Your task to perform on an android device: Search for Mexican restaurants on Maps Image 0: 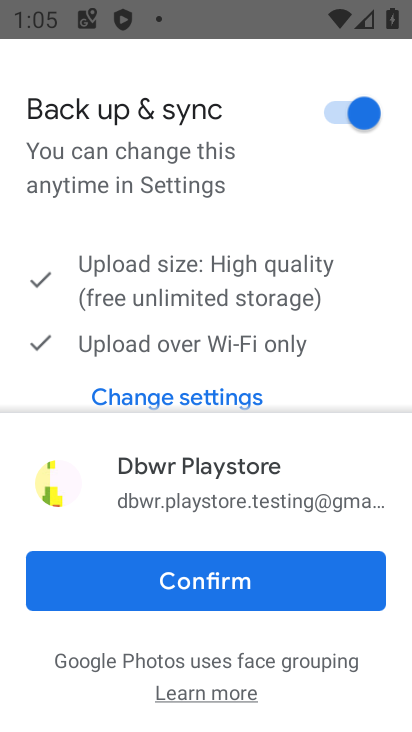
Step 0: press home button
Your task to perform on an android device: Search for Mexican restaurants on Maps Image 1: 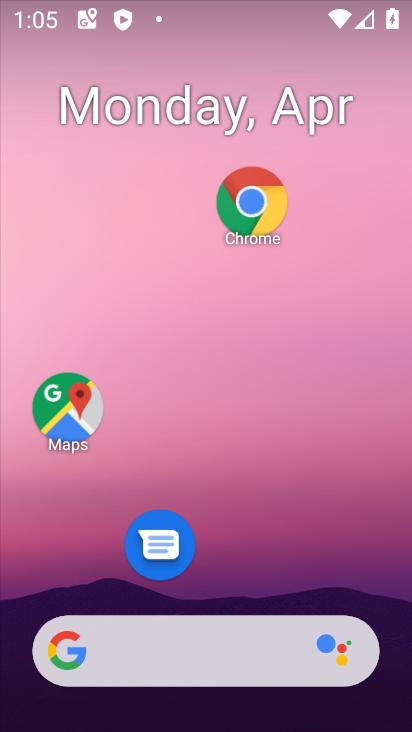
Step 1: click (81, 417)
Your task to perform on an android device: Search for Mexican restaurants on Maps Image 2: 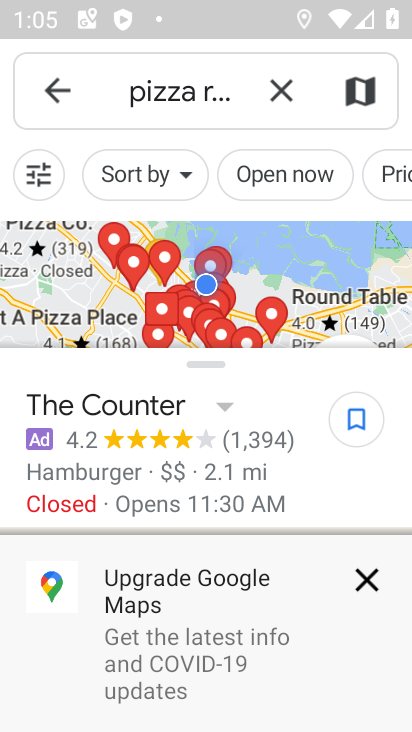
Step 2: click (267, 97)
Your task to perform on an android device: Search for Mexican restaurants on Maps Image 3: 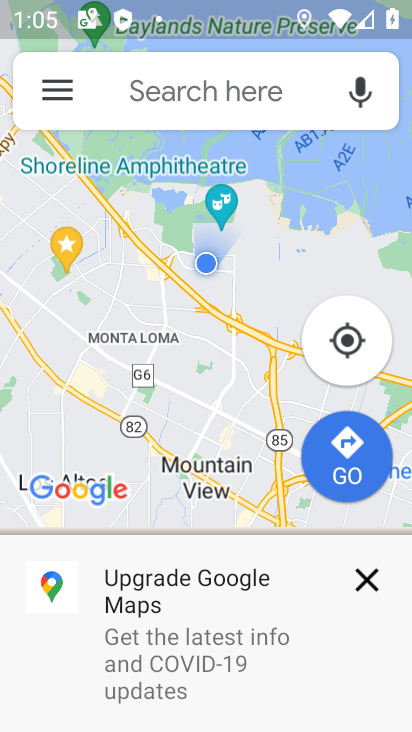
Step 3: click (254, 93)
Your task to perform on an android device: Search for Mexican restaurants on Maps Image 4: 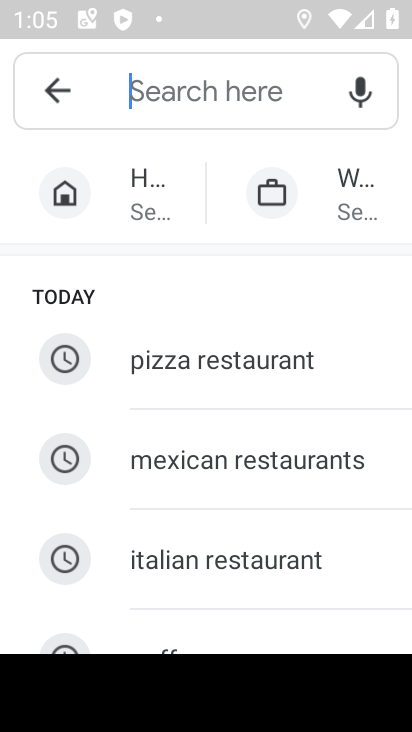
Step 4: click (108, 487)
Your task to perform on an android device: Search for Mexican restaurants on Maps Image 5: 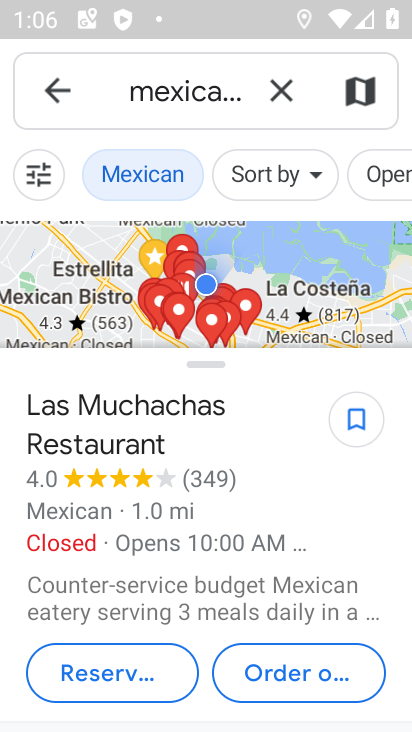
Step 5: task complete